Your task to perform on an android device: change timer sound Image 0: 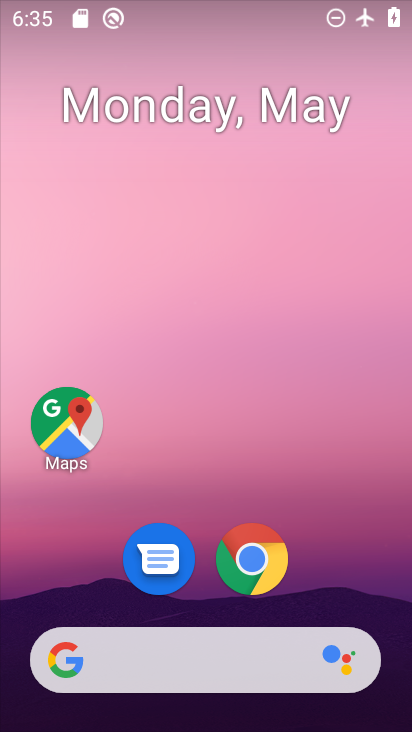
Step 0: click (162, 418)
Your task to perform on an android device: change timer sound Image 1: 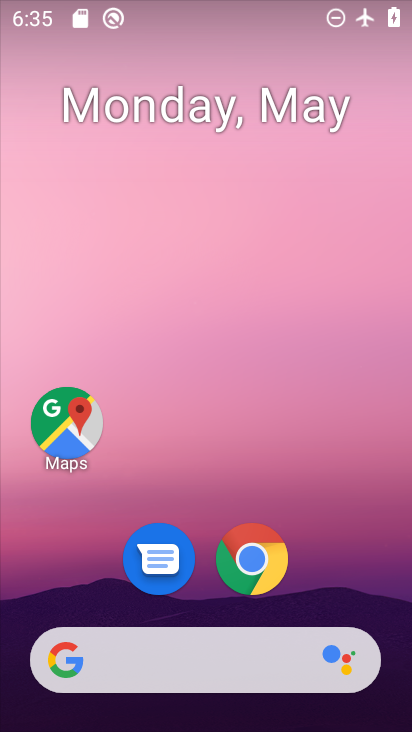
Step 1: drag from (333, 546) to (237, 126)
Your task to perform on an android device: change timer sound Image 2: 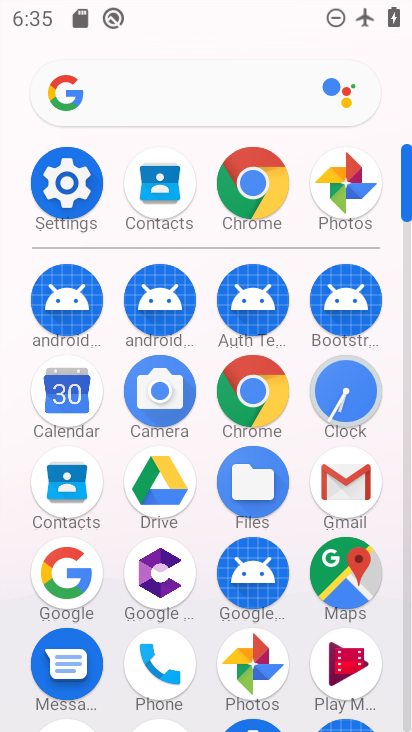
Step 2: click (375, 386)
Your task to perform on an android device: change timer sound Image 3: 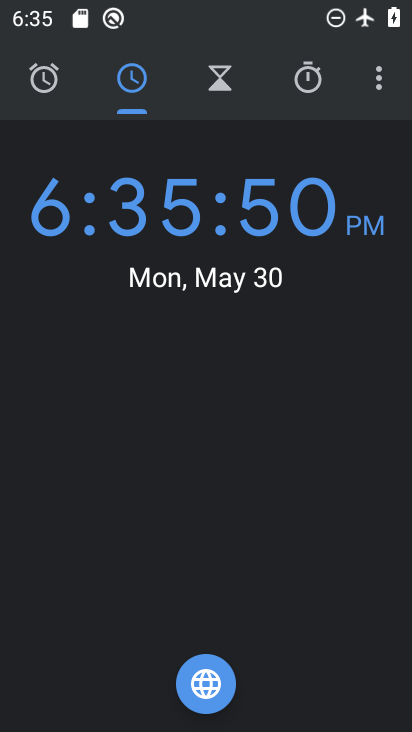
Step 3: click (375, 79)
Your task to perform on an android device: change timer sound Image 4: 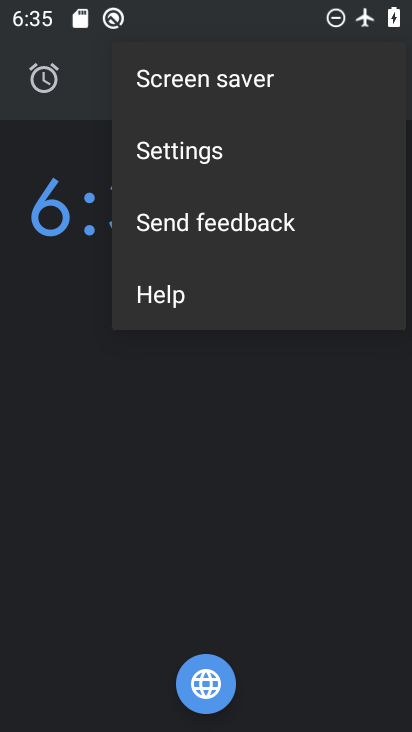
Step 4: click (204, 159)
Your task to perform on an android device: change timer sound Image 5: 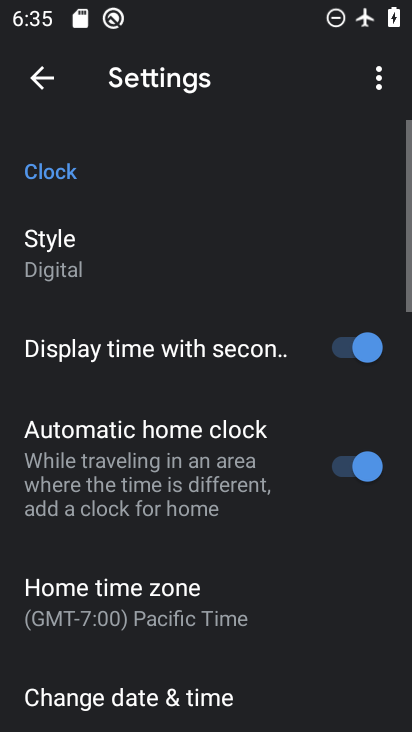
Step 5: drag from (270, 572) to (219, 322)
Your task to perform on an android device: change timer sound Image 6: 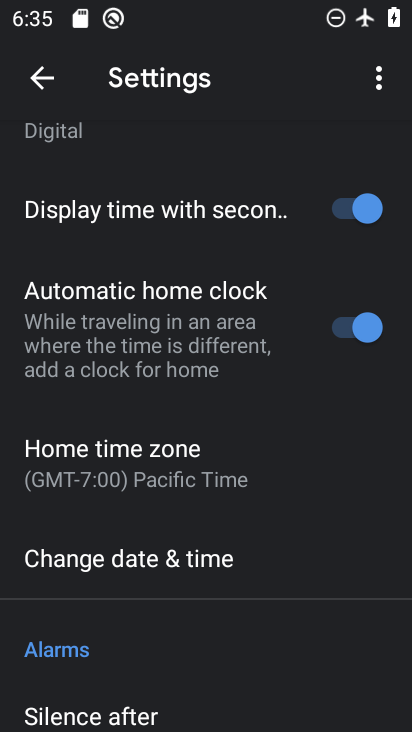
Step 6: drag from (257, 512) to (238, 201)
Your task to perform on an android device: change timer sound Image 7: 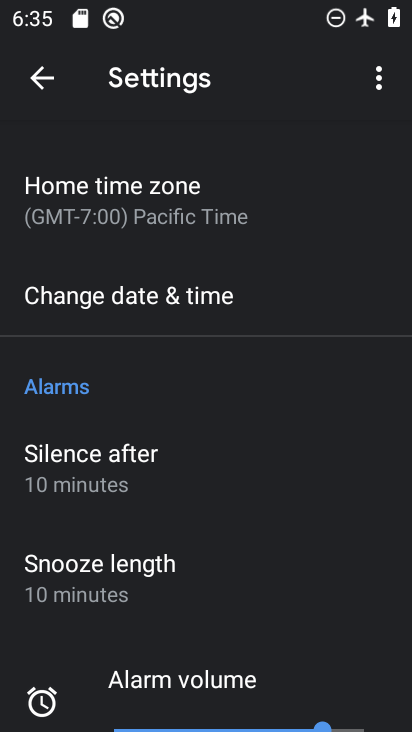
Step 7: drag from (275, 535) to (226, 280)
Your task to perform on an android device: change timer sound Image 8: 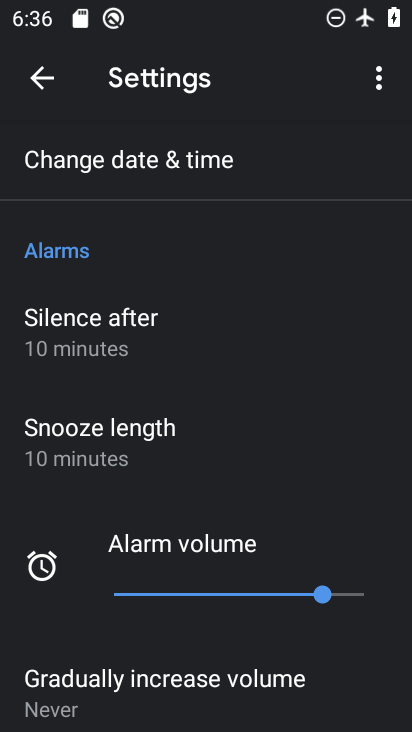
Step 8: drag from (205, 615) to (131, 344)
Your task to perform on an android device: change timer sound Image 9: 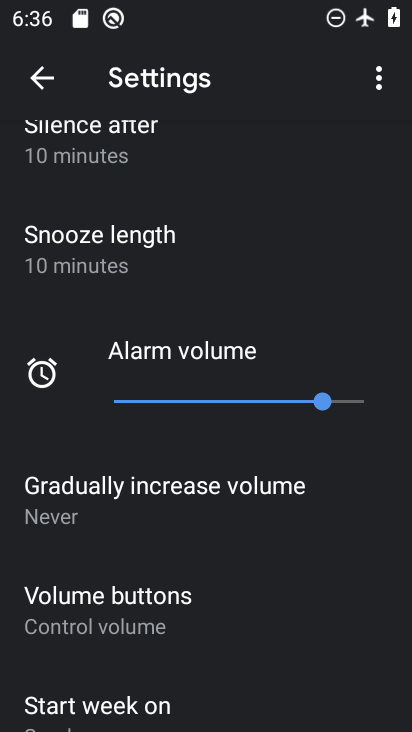
Step 9: drag from (202, 611) to (171, 338)
Your task to perform on an android device: change timer sound Image 10: 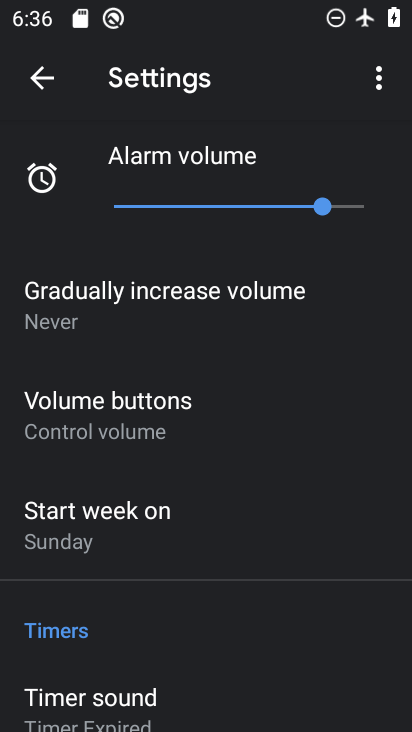
Step 10: click (111, 696)
Your task to perform on an android device: change timer sound Image 11: 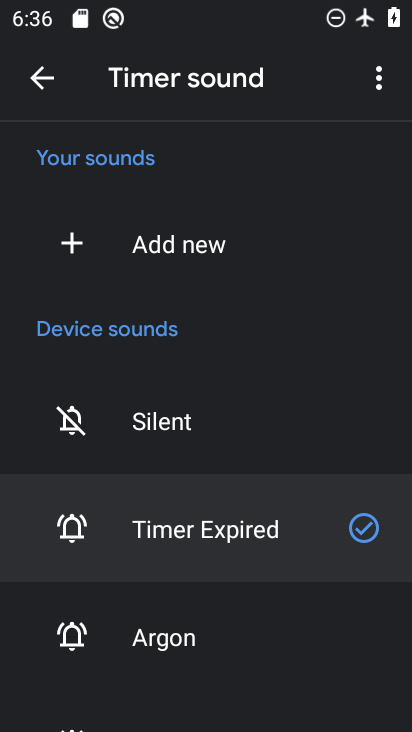
Step 11: click (140, 638)
Your task to perform on an android device: change timer sound Image 12: 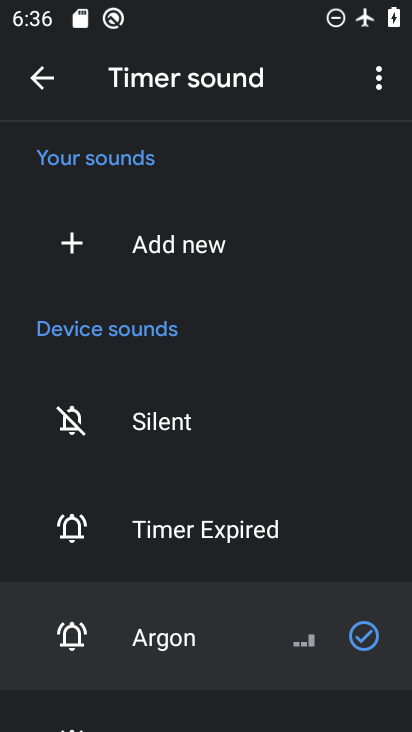
Step 12: task complete